Your task to perform on an android device: turn on javascript in the chrome app Image 0: 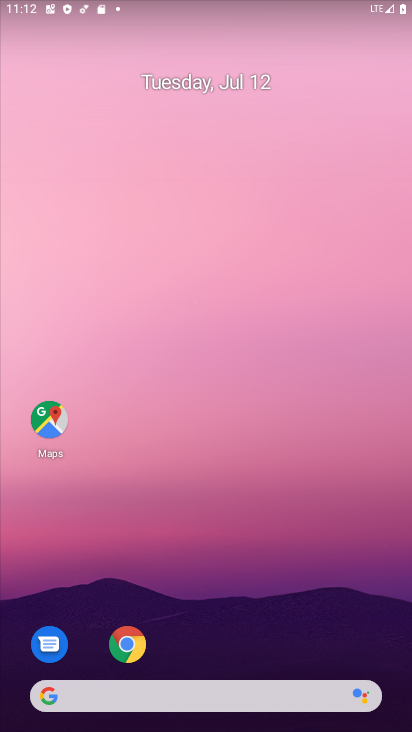
Step 0: click (129, 634)
Your task to perform on an android device: turn on javascript in the chrome app Image 1: 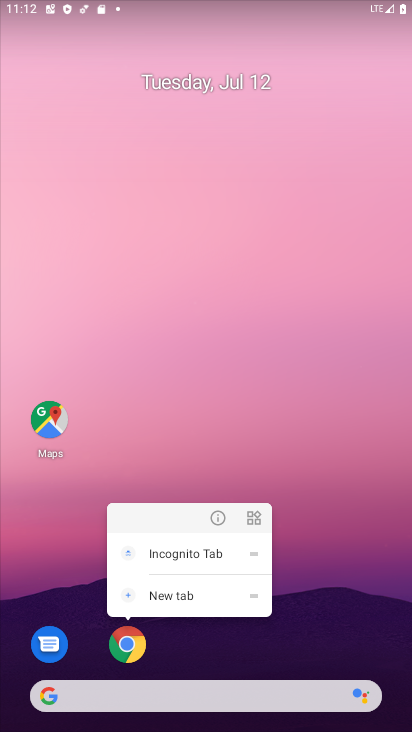
Step 1: click (125, 628)
Your task to perform on an android device: turn on javascript in the chrome app Image 2: 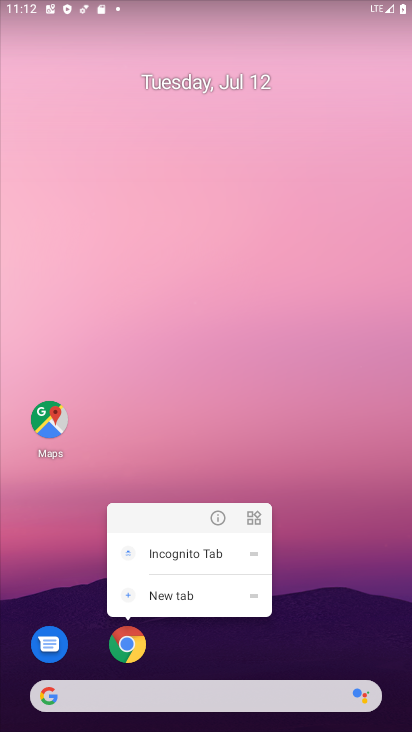
Step 2: click (125, 628)
Your task to perform on an android device: turn on javascript in the chrome app Image 3: 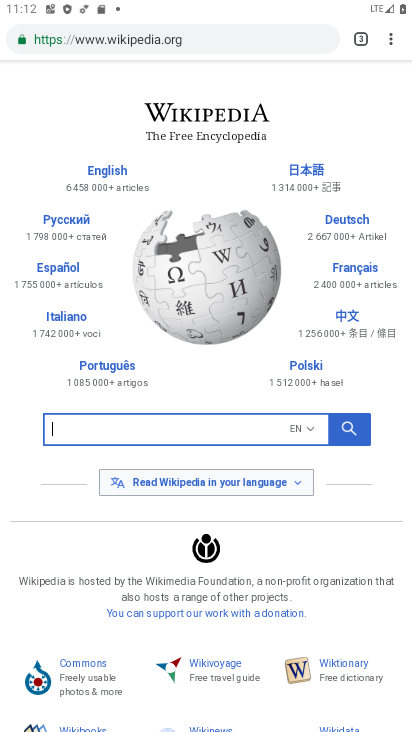
Step 3: click (388, 34)
Your task to perform on an android device: turn on javascript in the chrome app Image 4: 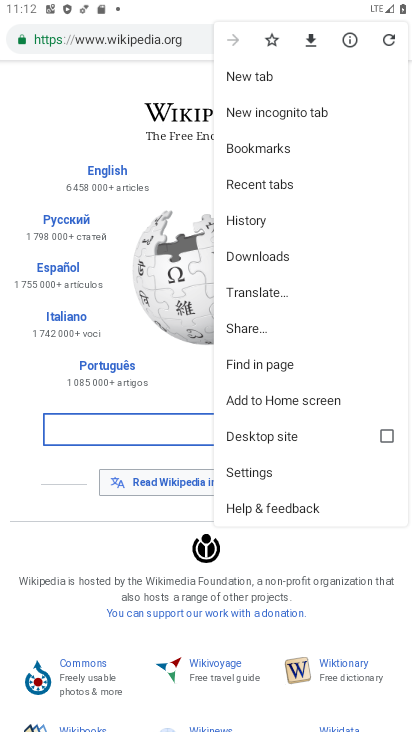
Step 4: click (288, 477)
Your task to perform on an android device: turn on javascript in the chrome app Image 5: 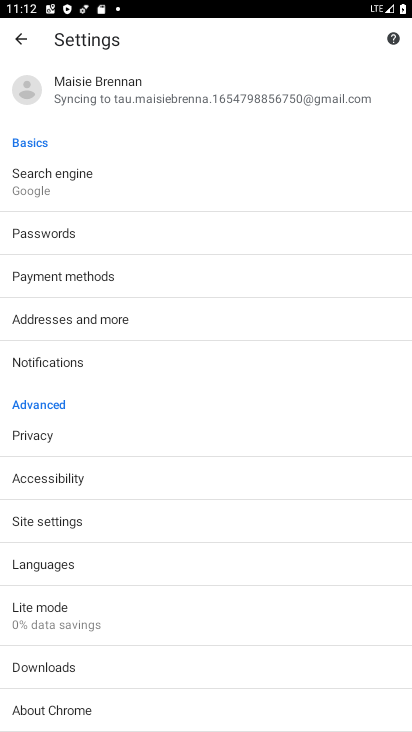
Step 5: click (105, 523)
Your task to perform on an android device: turn on javascript in the chrome app Image 6: 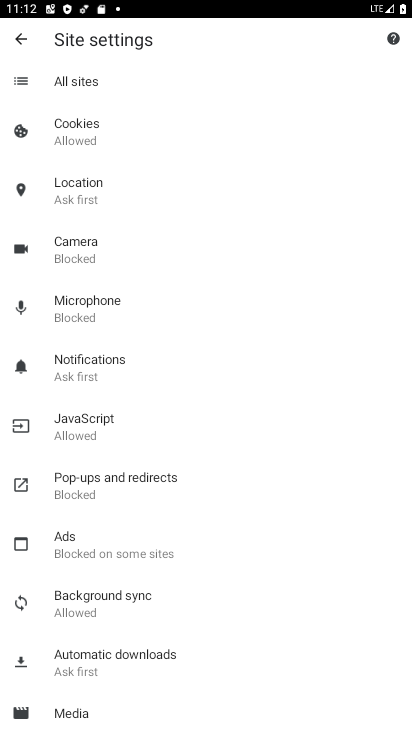
Step 6: click (118, 424)
Your task to perform on an android device: turn on javascript in the chrome app Image 7: 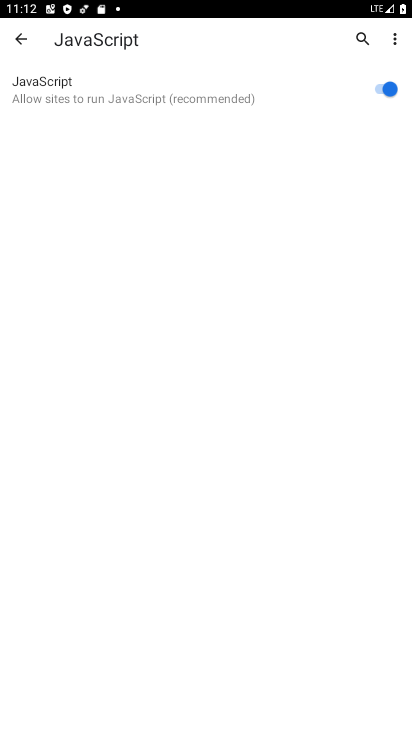
Step 7: task complete